Your task to perform on an android device: Open the Play Movies app and select the watchlist tab. Image 0: 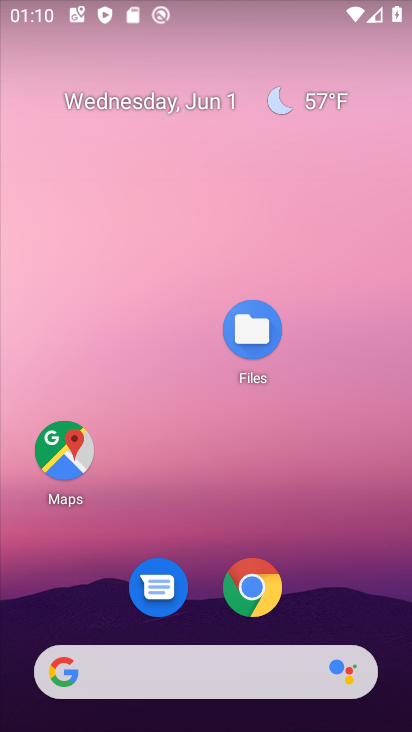
Step 0: press home button
Your task to perform on an android device: Open the Play Movies app and select the watchlist tab. Image 1: 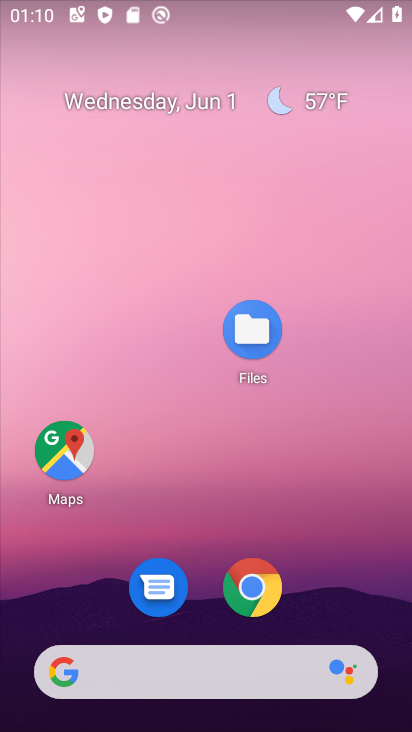
Step 1: drag from (384, 525) to (381, 146)
Your task to perform on an android device: Open the Play Movies app and select the watchlist tab. Image 2: 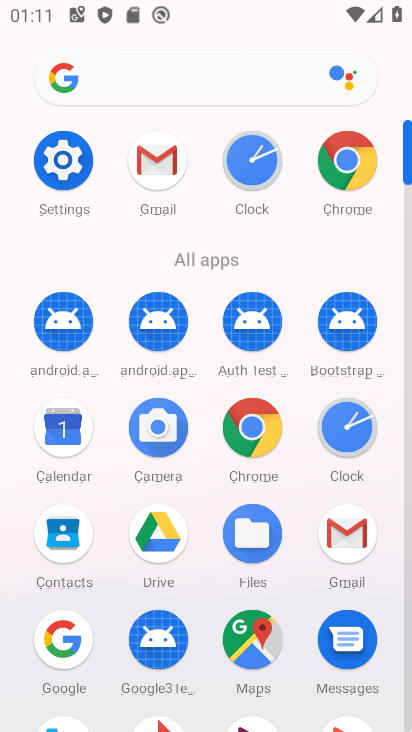
Step 2: drag from (411, 597) to (394, 644)
Your task to perform on an android device: Open the Play Movies app and select the watchlist tab. Image 3: 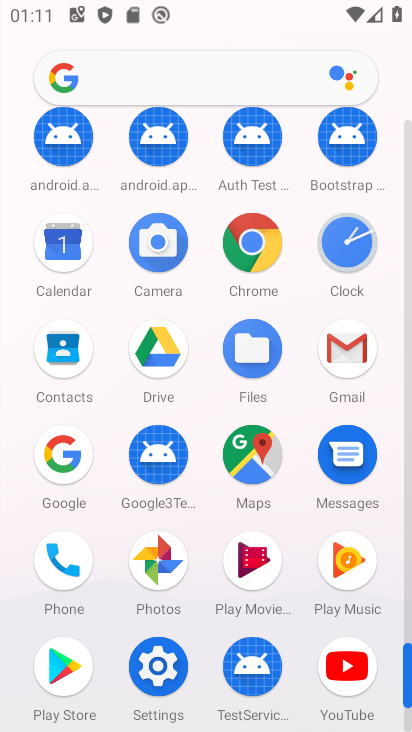
Step 3: click (251, 565)
Your task to perform on an android device: Open the Play Movies app and select the watchlist tab. Image 4: 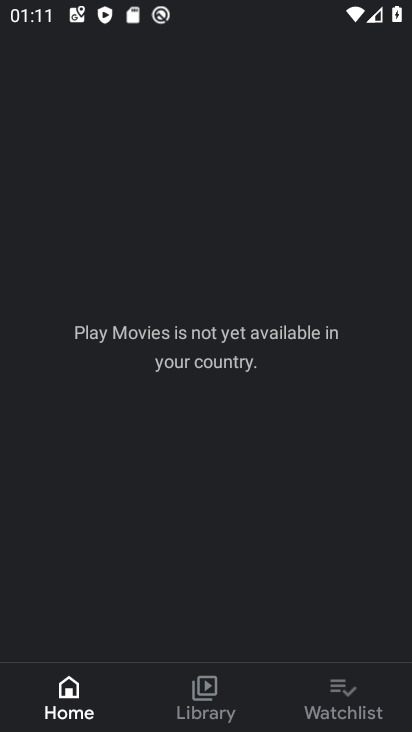
Step 4: click (356, 683)
Your task to perform on an android device: Open the Play Movies app and select the watchlist tab. Image 5: 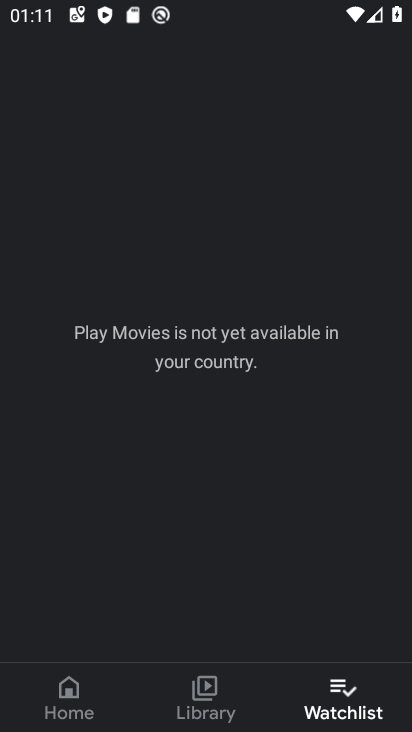
Step 5: task complete